Your task to perform on an android device: Open wifi settings Image 0: 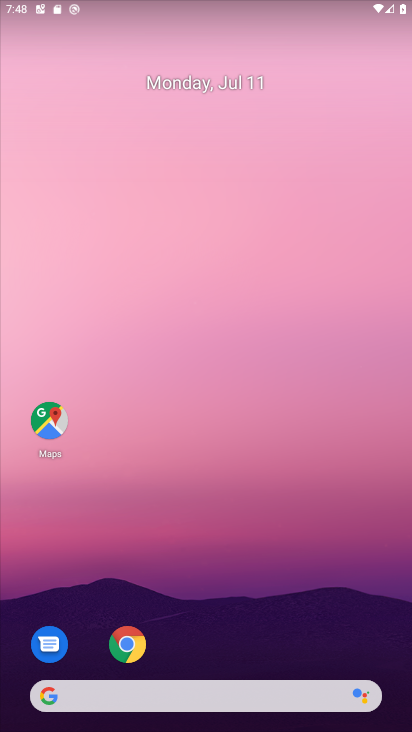
Step 0: drag from (269, 615) to (259, 290)
Your task to perform on an android device: Open wifi settings Image 1: 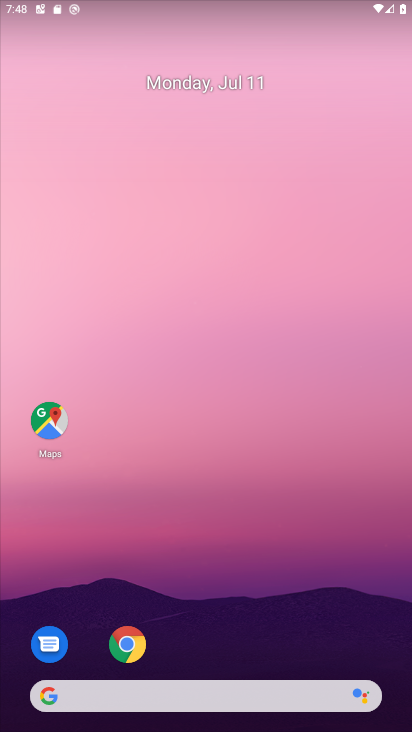
Step 1: drag from (259, 679) to (259, 241)
Your task to perform on an android device: Open wifi settings Image 2: 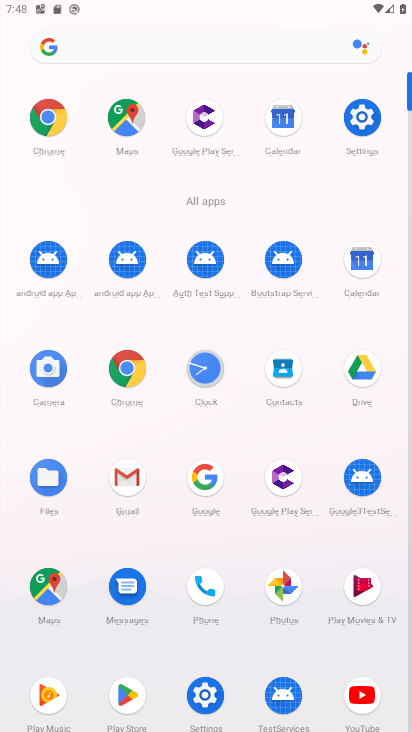
Step 2: click (370, 124)
Your task to perform on an android device: Open wifi settings Image 3: 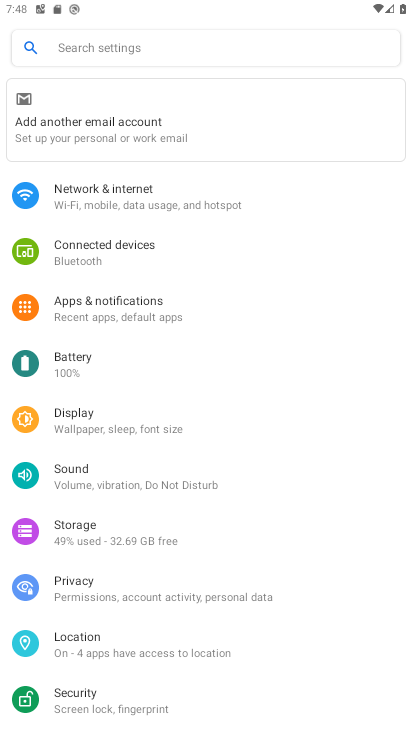
Step 3: click (141, 185)
Your task to perform on an android device: Open wifi settings Image 4: 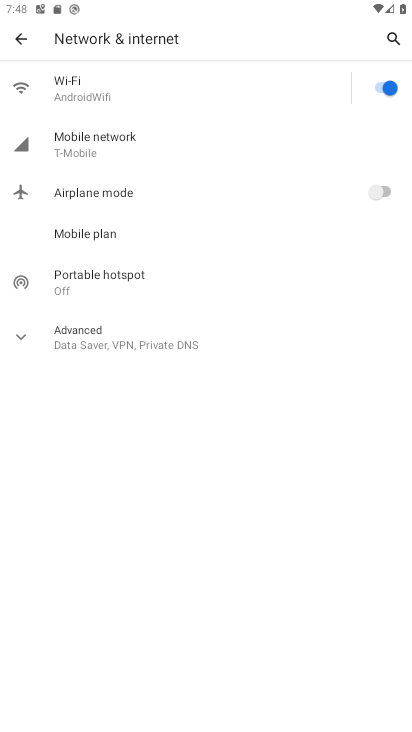
Step 4: click (112, 91)
Your task to perform on an android device: Open wifi settings Image 5: 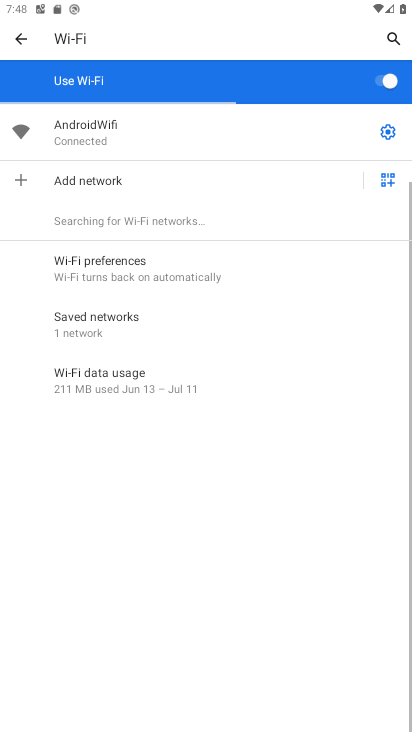
Step 5: task complete